Your task to perform on an android device: toggle location history Image 0: 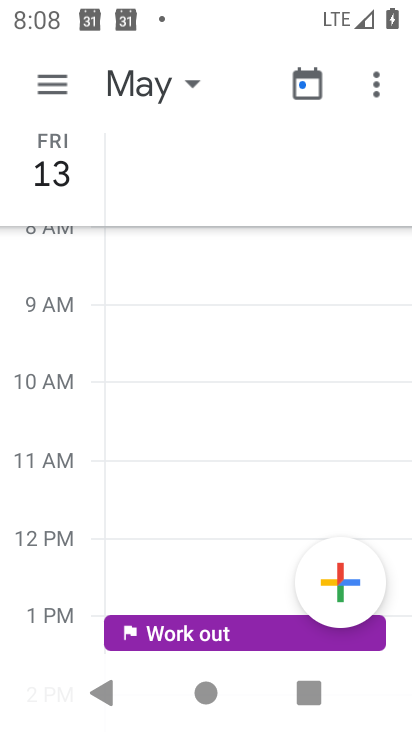
Step 0: press home button
Your task to perform on an android device: toggle location history Image 1: 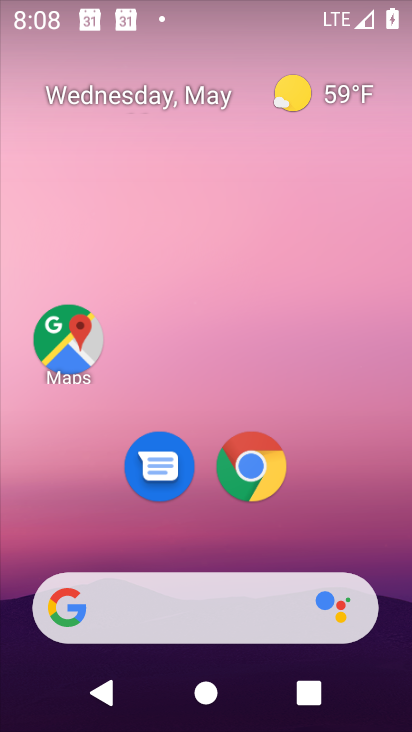
Step 1: drag from (341, 514) to (353, 211)
Your task to perform on an android device: toggle location history Image 2: 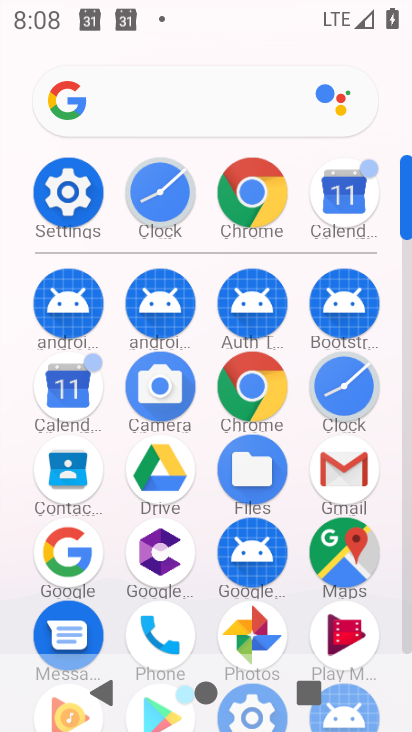
Step 2: click (59, 203)
Your task to perform on an android device: toggle location history Image 3: 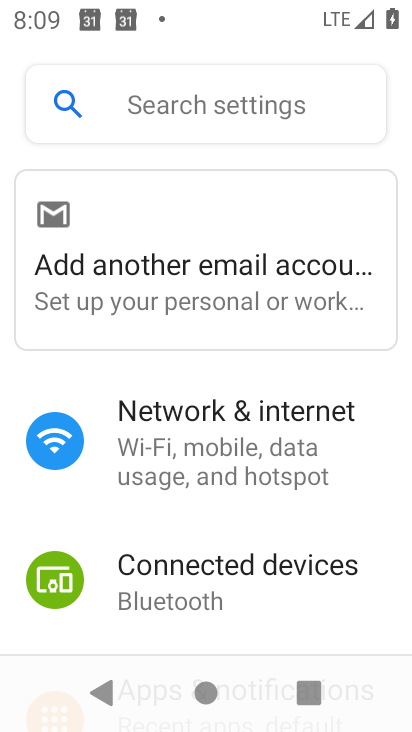
Step 3: drag from (249, 573) to (277, 143)
Your task to perform on an android device: toggle location history Image 4: 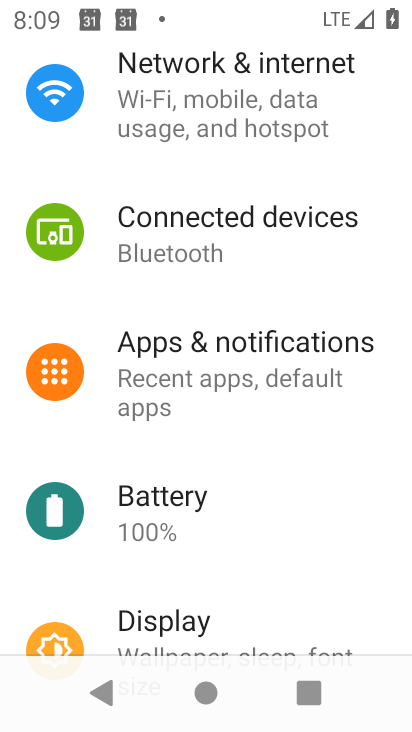
Step 4: drag from (211, 455) to (246, 59)
Your task to perform on an android device: toggle location history Image 5: 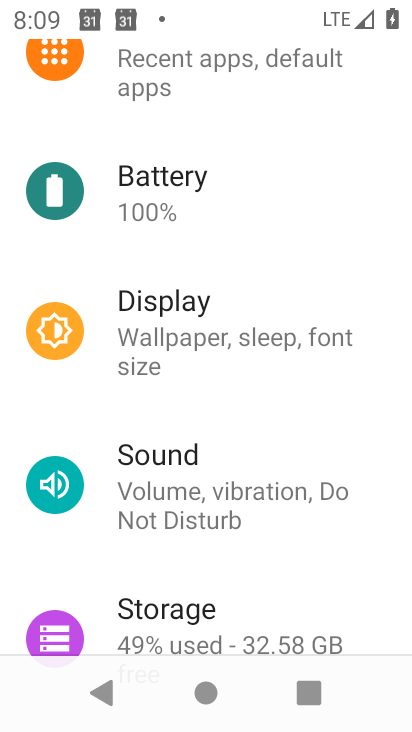
Step 5: drag from (280, 550) to (324, 149)
Your task to perform on an android device: toggle location history Image 6: 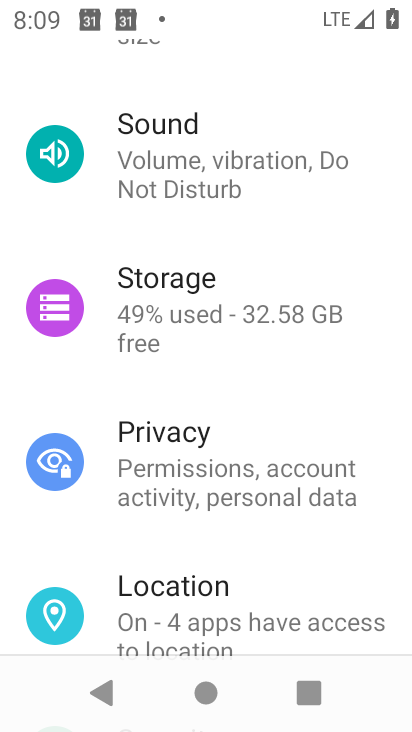
Step 6: click (198, 595)
Your task to perform on an android device: toggle location history Image 7: 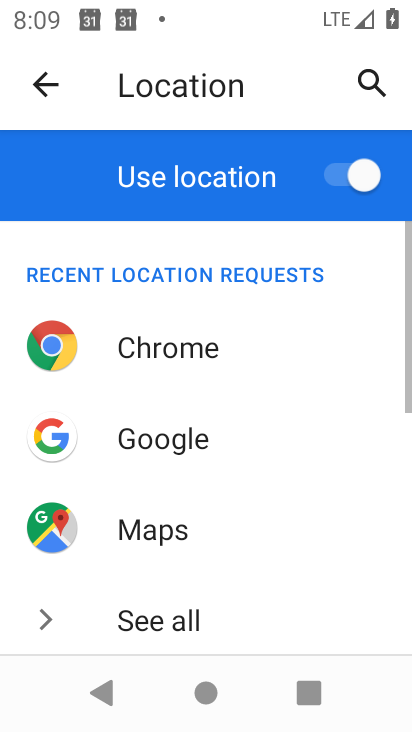
Step 7: drag from (257, 600) to (289, 168)
Your task to perform on an android device: toggle location history Image 8: 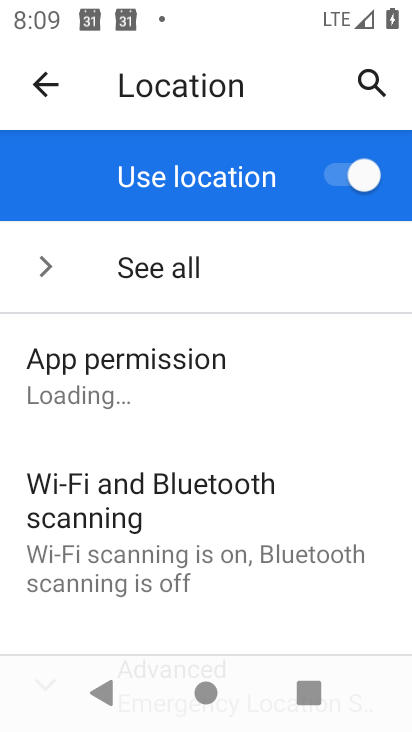
Step 8: drag from (180, 560) to (268, 161)
Your task to perform on an android device: toggle location history Image 9: 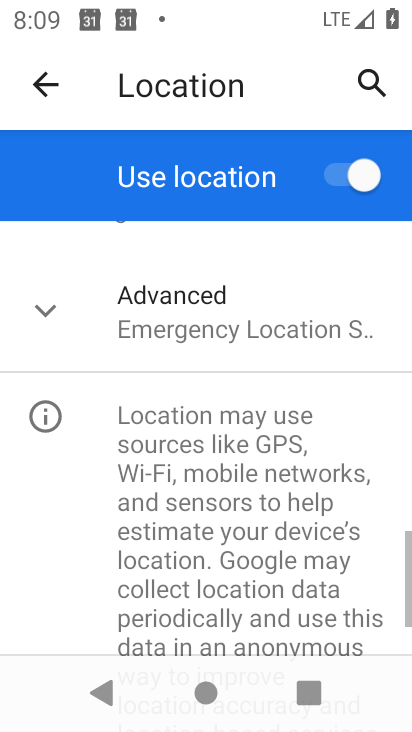
Step 9: click (172, 328)
Your task to perform on an android device: toggle location history Image 10: 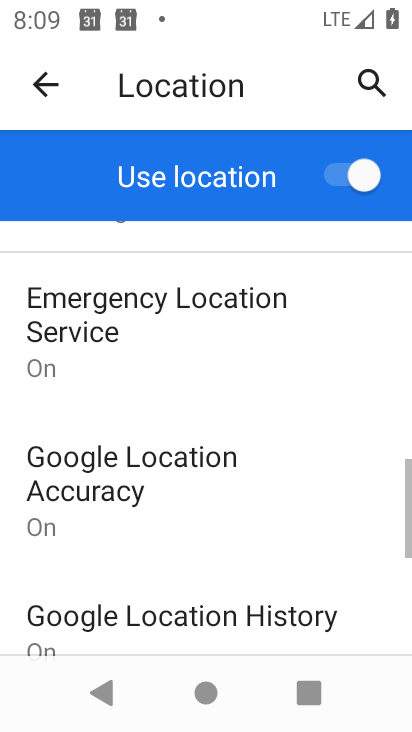
Step 10: drag from (157, 608) to (196, 417)
Your task to perform on an android device: toggle location history Image 11: 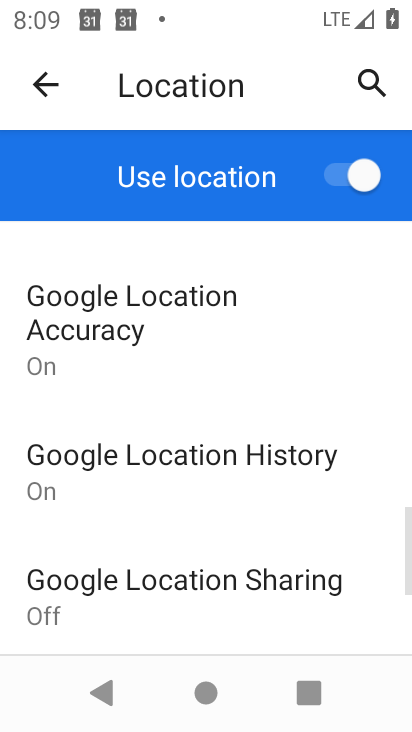
Step 11: click (154, 495)
Your task to perform on an android device: toggle location history Image 12: 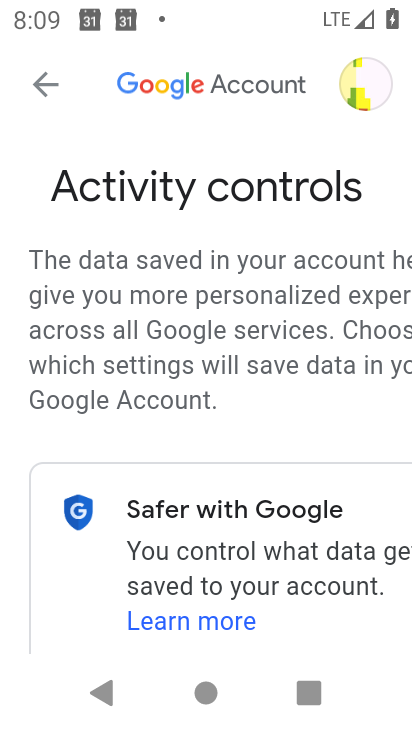
Step 12: drag from (304, 604) to (388, 152)
Your task to perform on an android device: toggle location history Image 13: 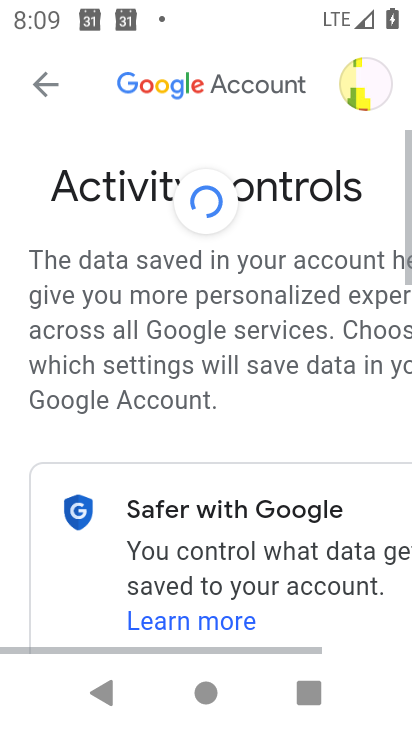
Step 13: drag from (244, 591) to (286, 178)
Your task to perform on an android device: toggle location history Image 14: 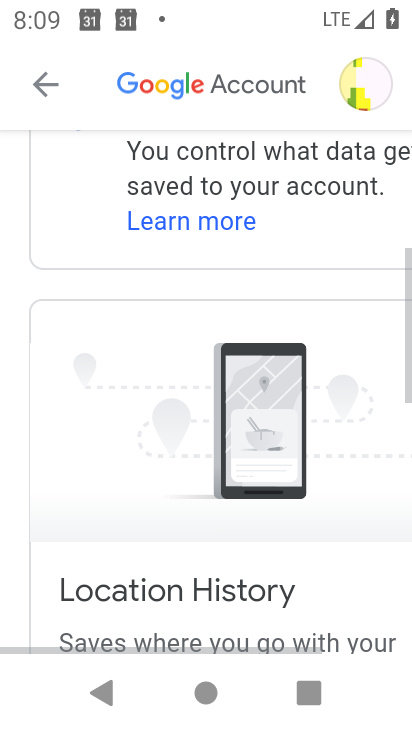
Step 14: drag from (278, 646) to (330, 229)
Your task to perform on an android device: toggle location history Image 15: 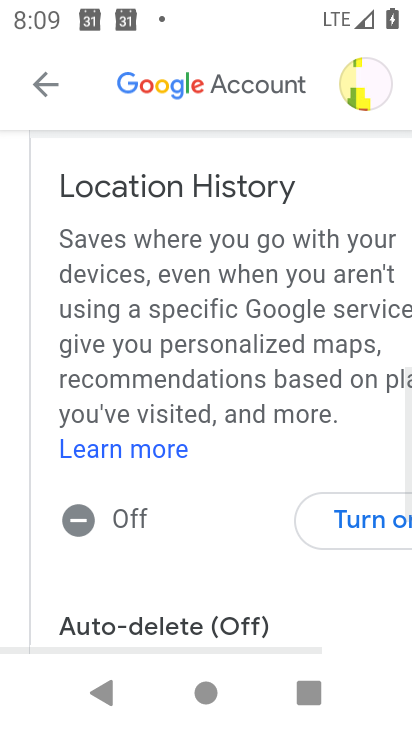
Step 15: click (340, 512)
Your task to perform on an android device: toggle location history Image 16: 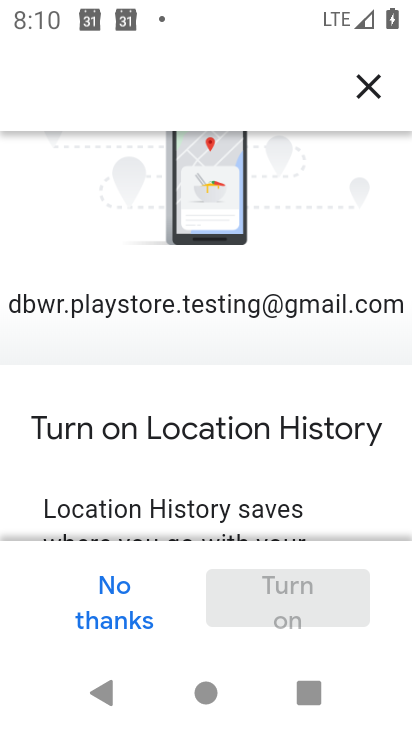
Step 16: task complete